Your task to perform on an android device: turn on notifications settings in the gmail app Image 0: 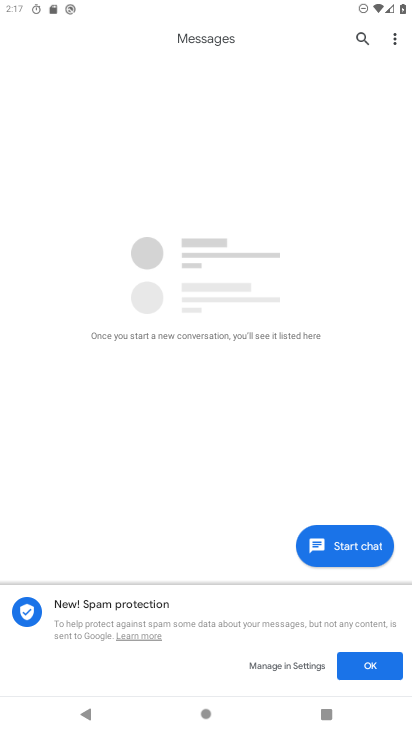
Step 0: press home button
Your task to perform on an android device: turn on notifications settings in the gmail app Image 1: 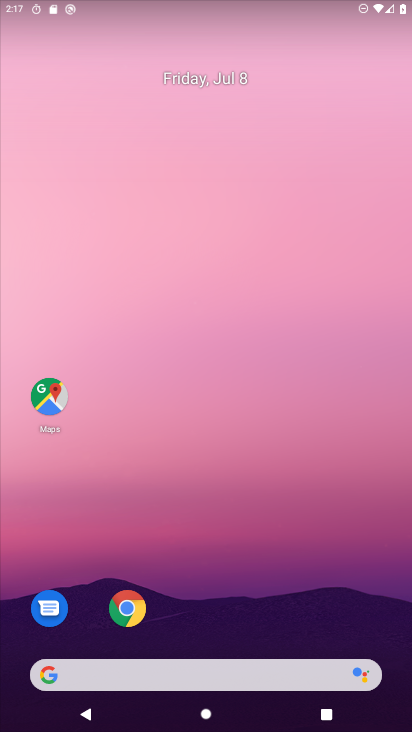
Step 1: drag from (252, 682) to (225, 149)
Your task to perform on an android device: turn on notifications settings in the gmail app Image 2: 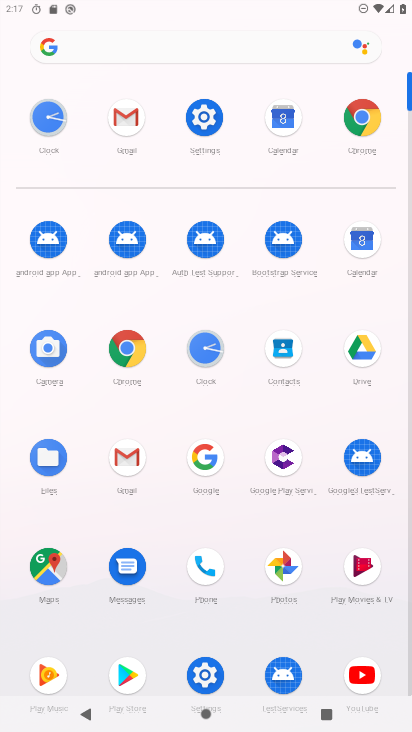
Step 2: click (132, 456)
Your task to perform on an android device: turn on notifications settings in the gmail app Image 3: 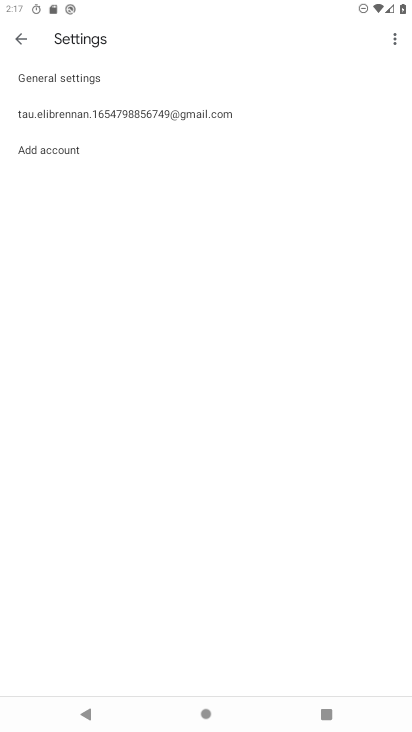
Step 3: click (90, 108)
Your task to perform on an android device: turn on notifications settings in the gmail app Image 4: 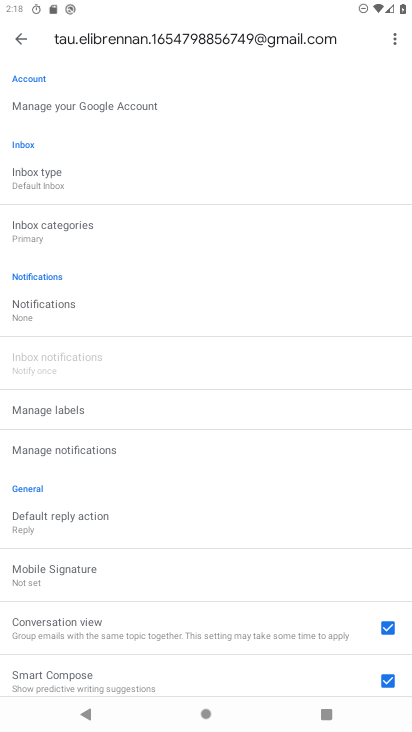
Step 4: click (34, 309)
Your task to perform on an android device: turn on notifications settings in the gmail app Image 5: 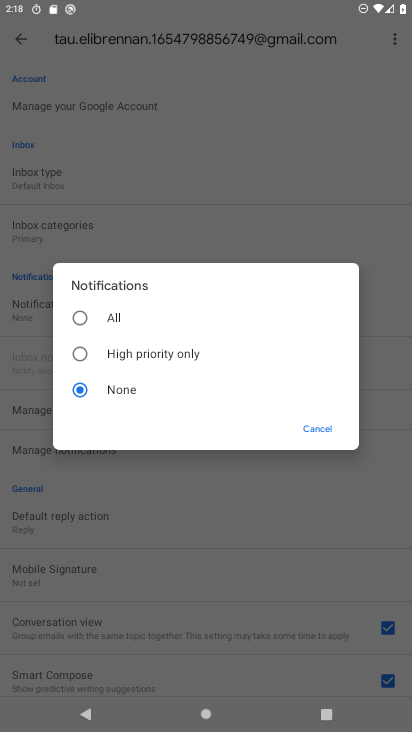
Step 5: click (78, 317)
Your task to perform on an android device: turn on notifications settings in the gmail app Image 6: 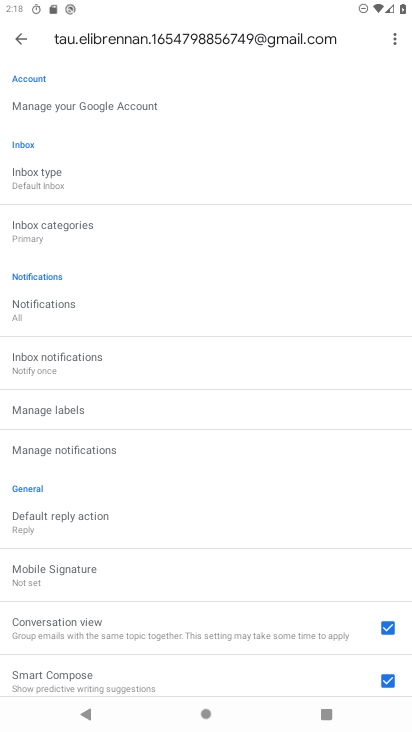
Step 6: task complete